Your task to perform on an android device: What is the speed of light? Image 0: 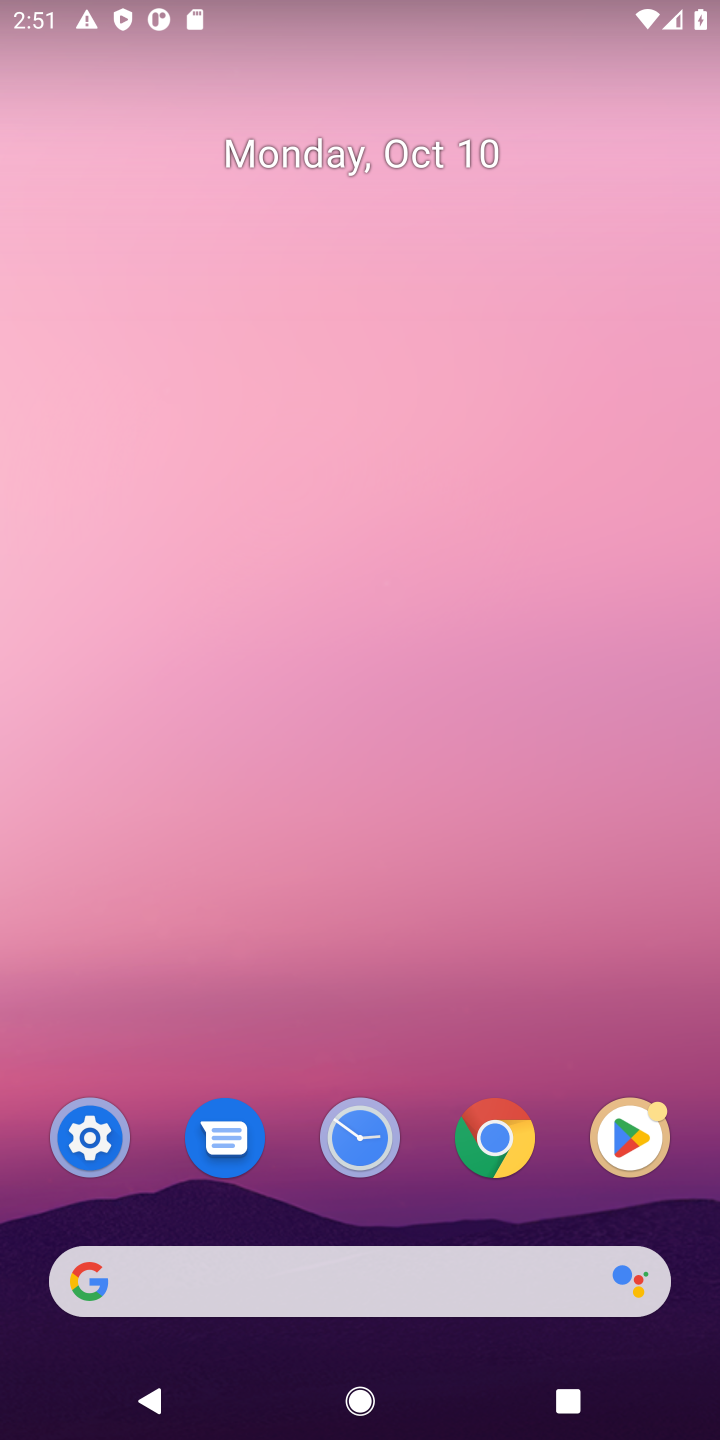
Step 0: drag from (491, 1401) to (469, 386)
Your task to perform on an android device: What is the speed of light? Image 1: 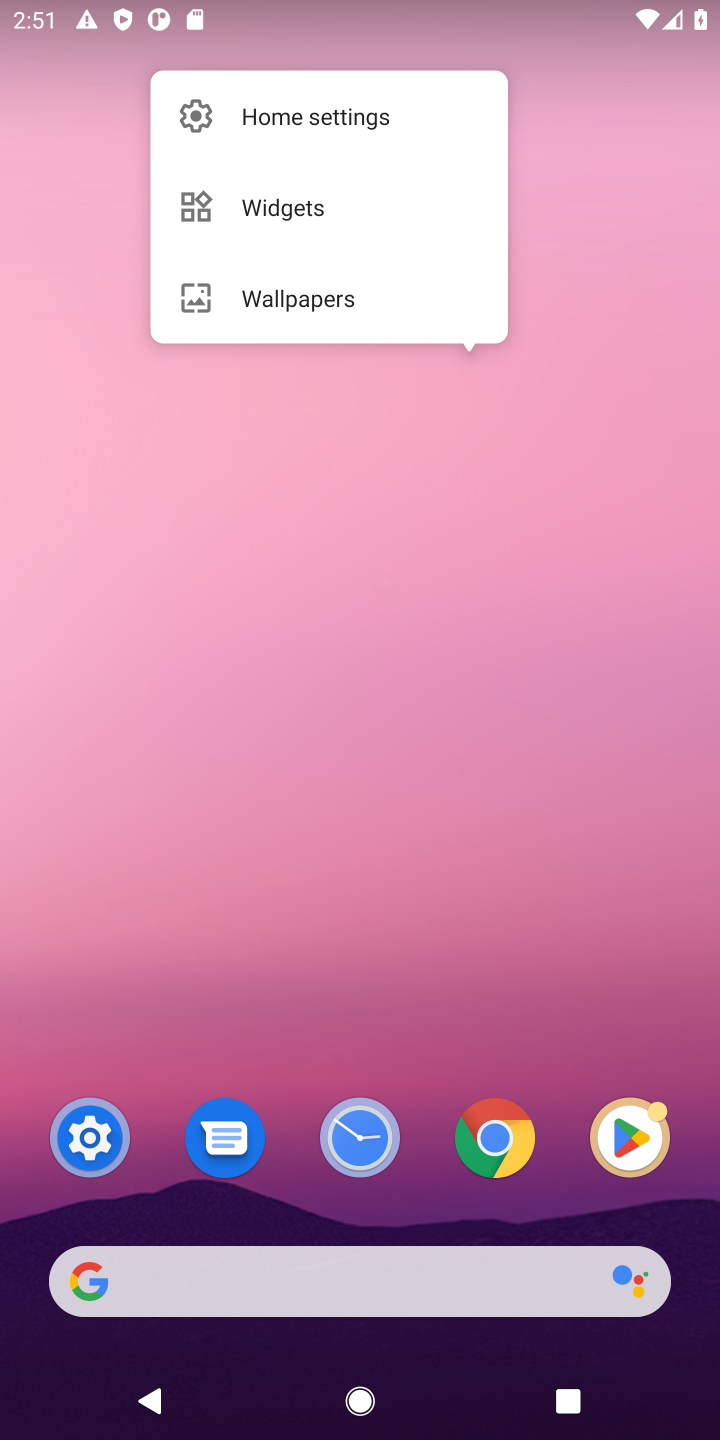
Step 1: click (507, 1125)
Your task to perform on an android device: What is the speed of light? Image 2: 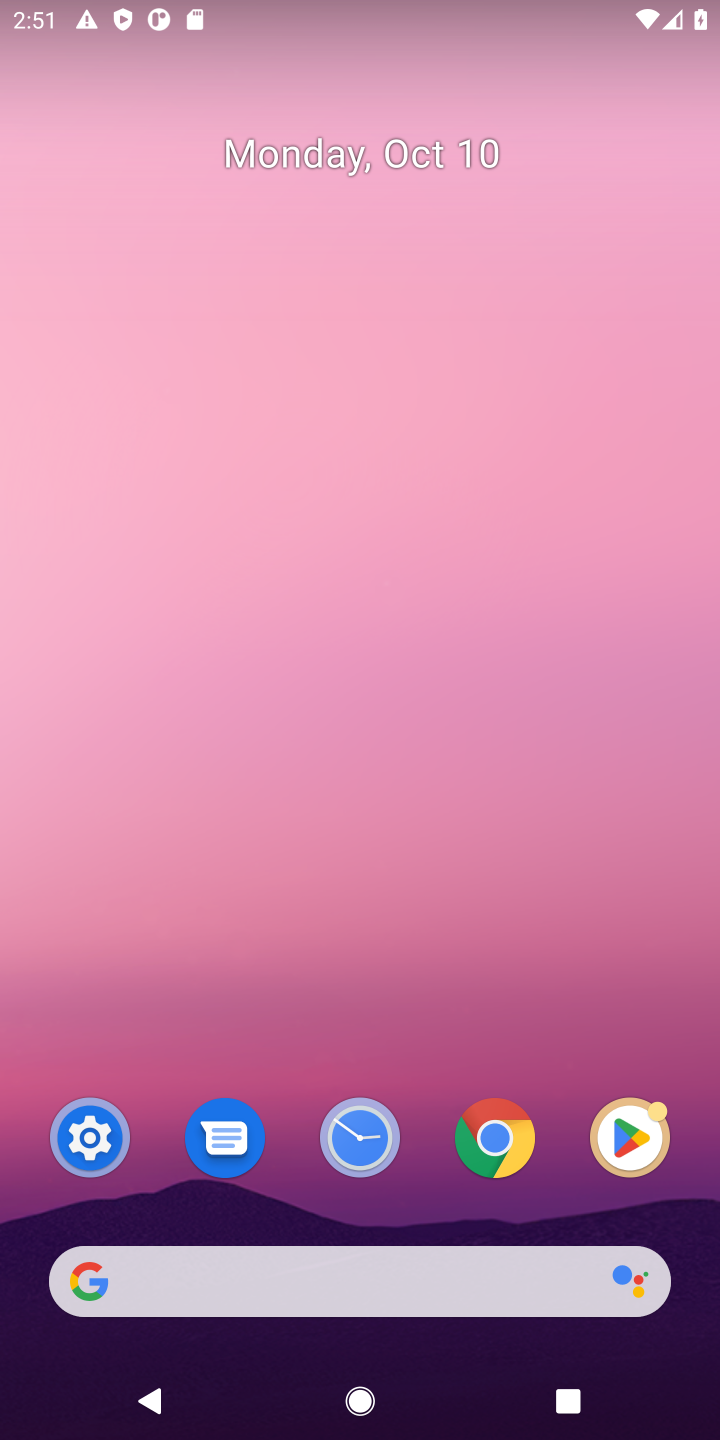
Step 2: click (491, 1163)
Your task to perform on an android device: What is the speed of light? Image 3: 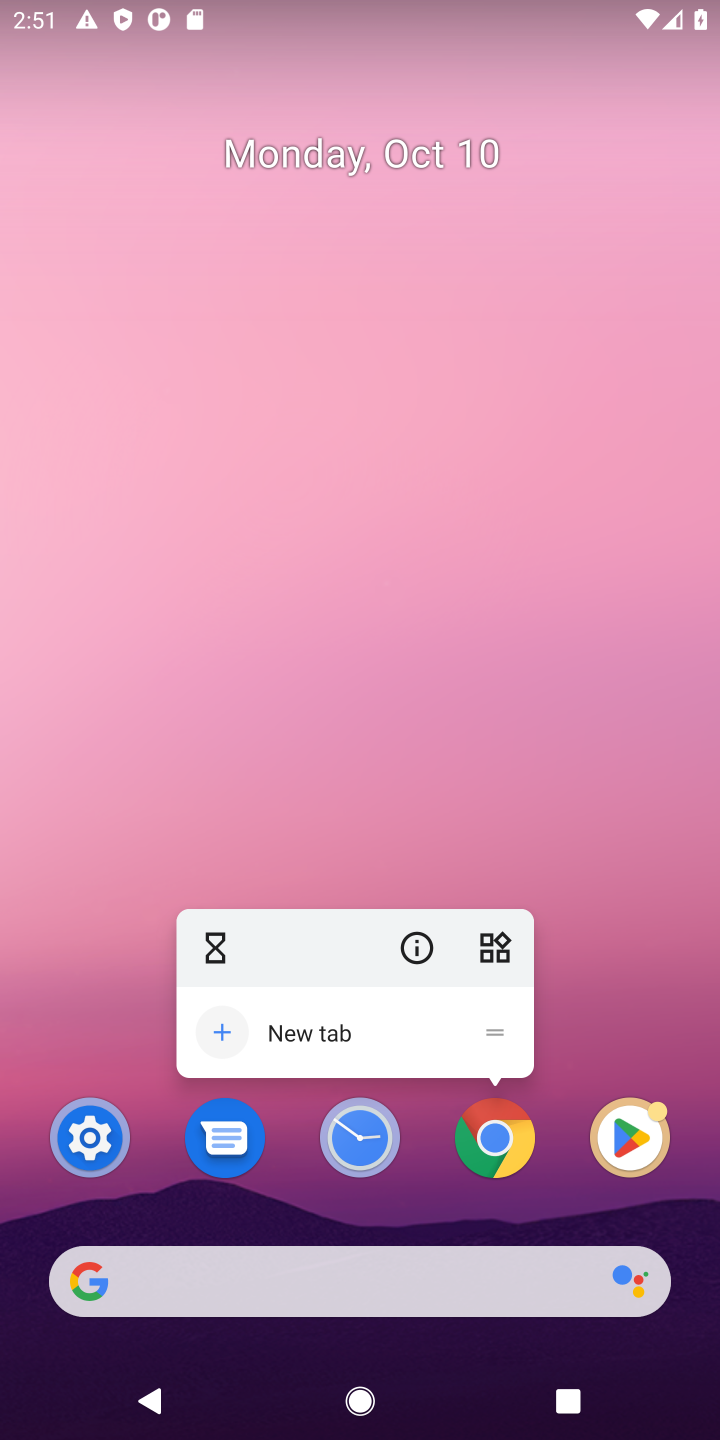
Step 3: click (321, 1053)
Your task to perform on an android device: What is the speed of light? Image 4: 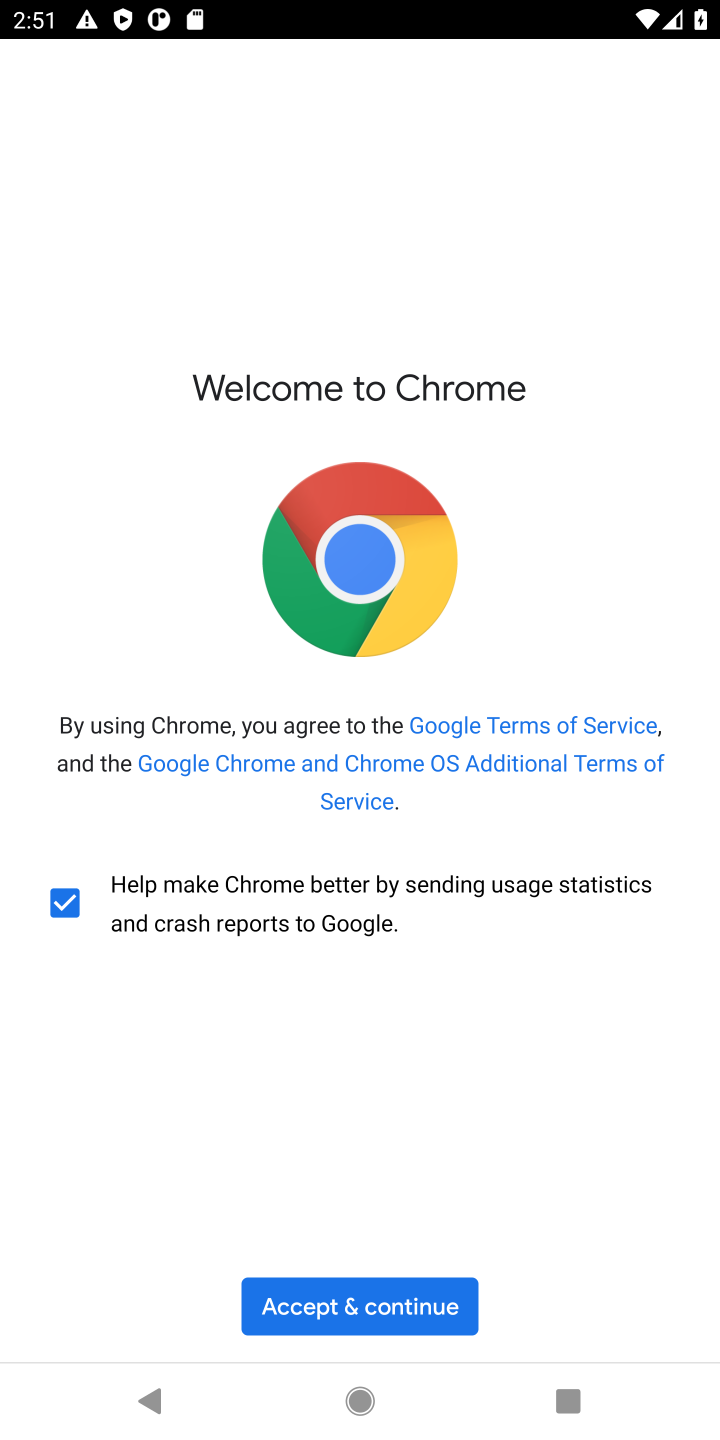
Step 4: click (382, 1307)
Your task to perform on an android device: What is the speed of light? Image 5: 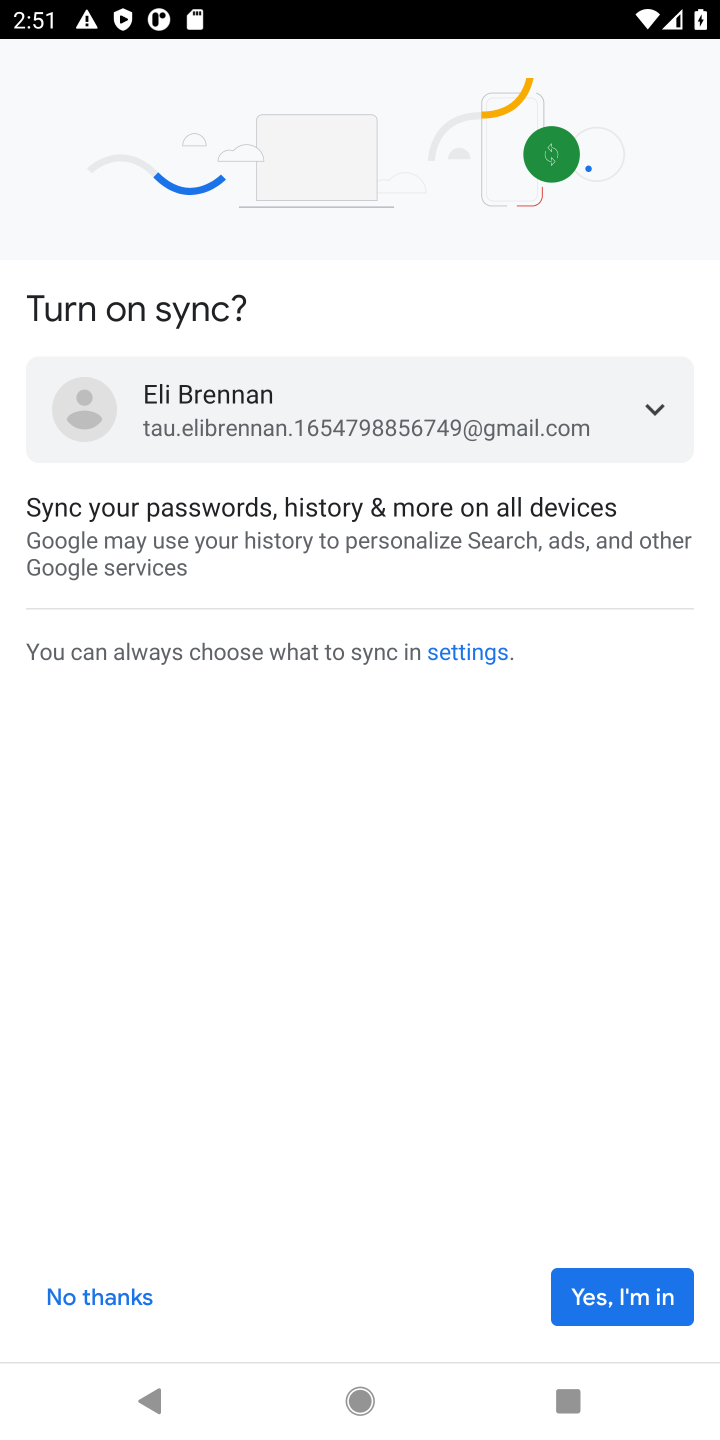
Step 5: click (647, 1291)
Your task to perform on an android device: What is the speed of light? Image 6: 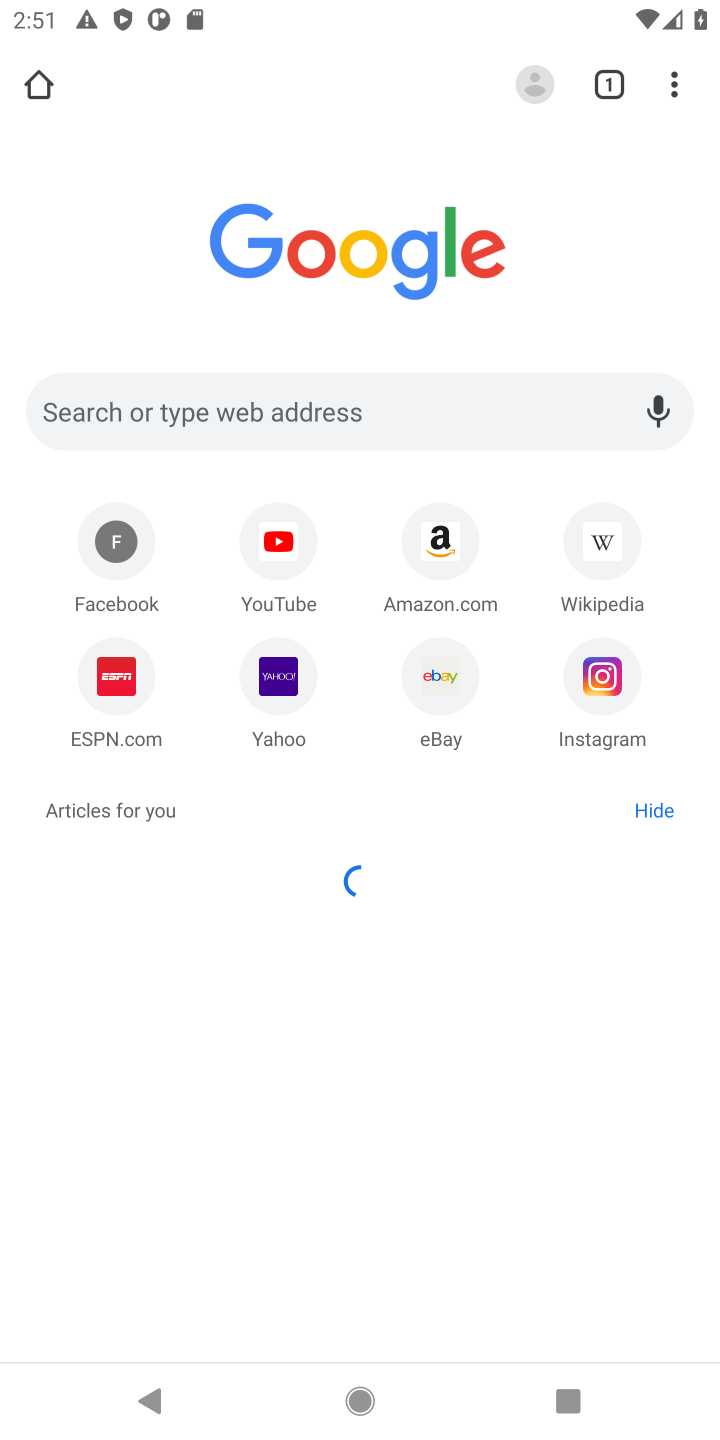
Step 6: click (357, 409)
Your task to perform on an android device: What is the speed of light? Image 7: 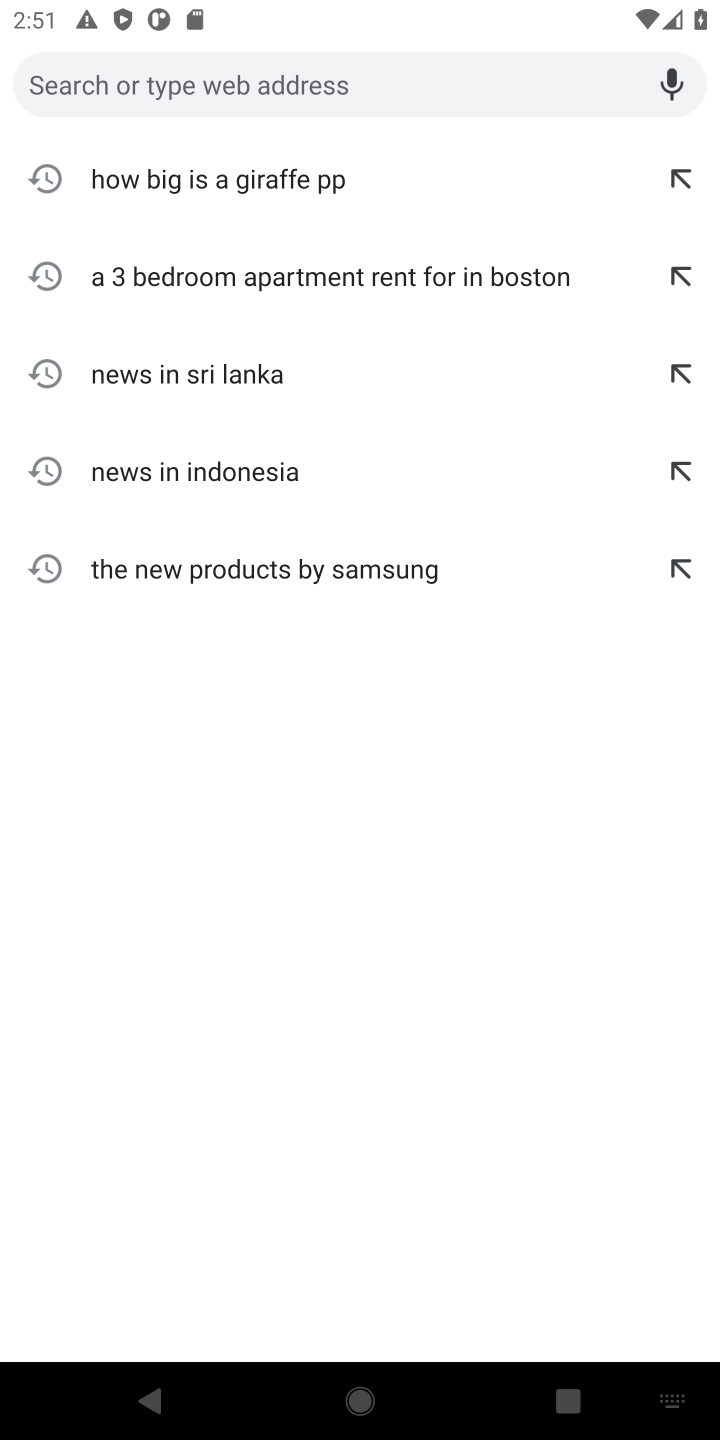
Step 7: type "speed of light"
Your task to perform on an android device: What is the speed of light? Image 8: 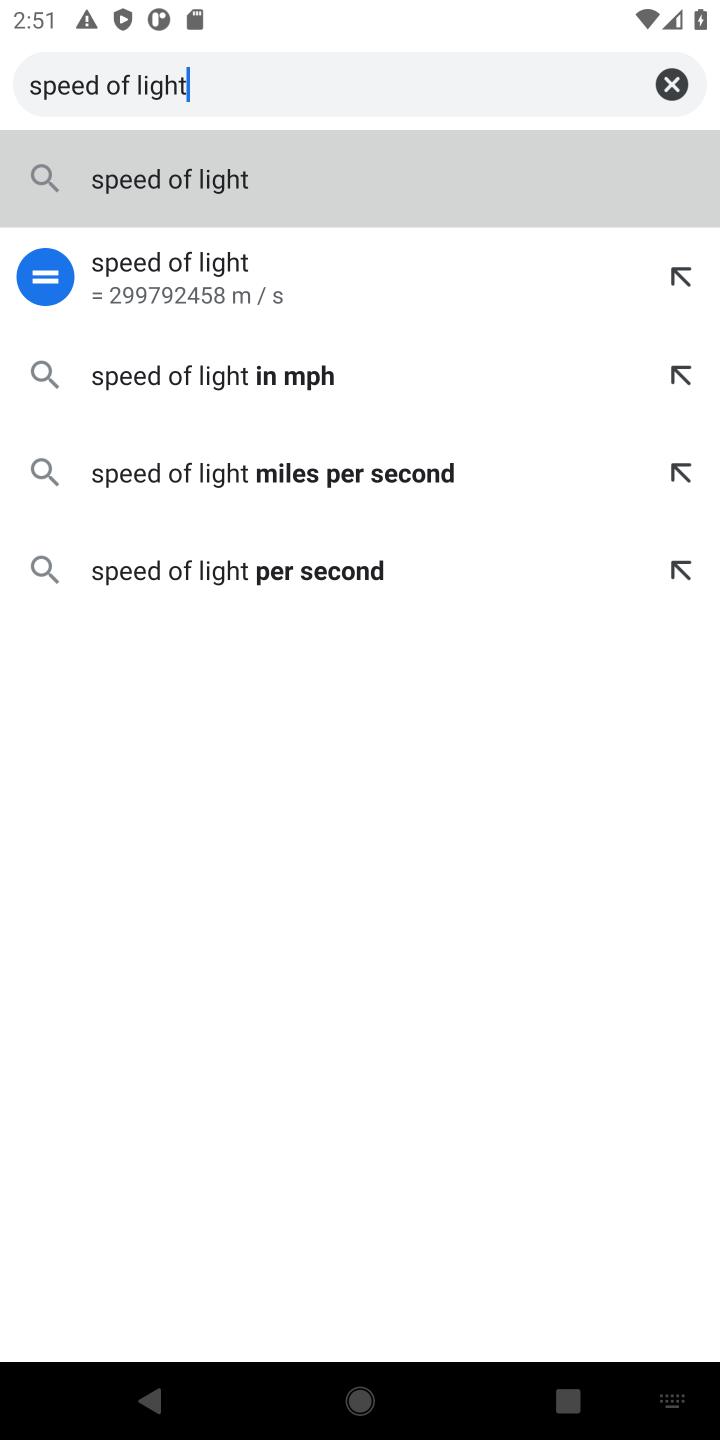
Step 8: press enter
Your task to perform on an android device: What is the speed of light? Image 9: 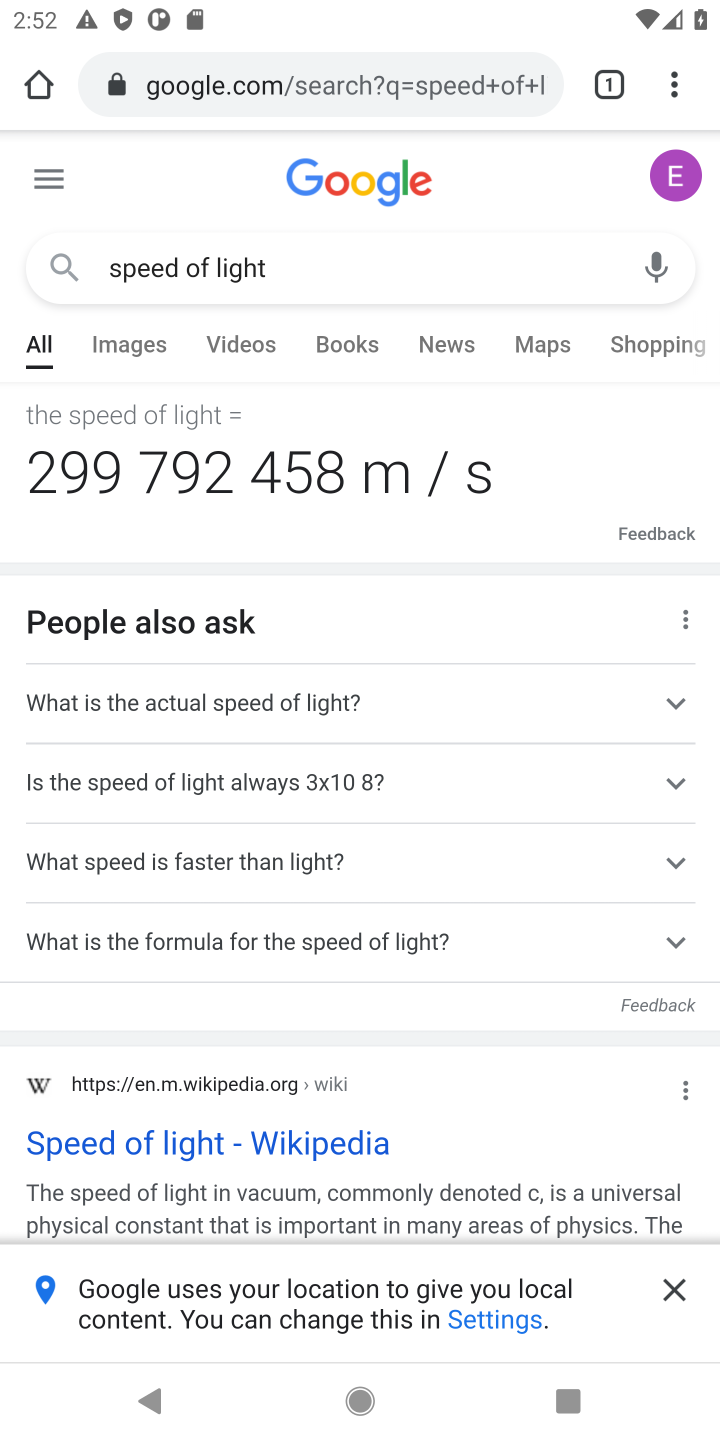
Step 9: task complete